Your task to perform on an android device: Open calendar and show me the second week of next month Image 0: 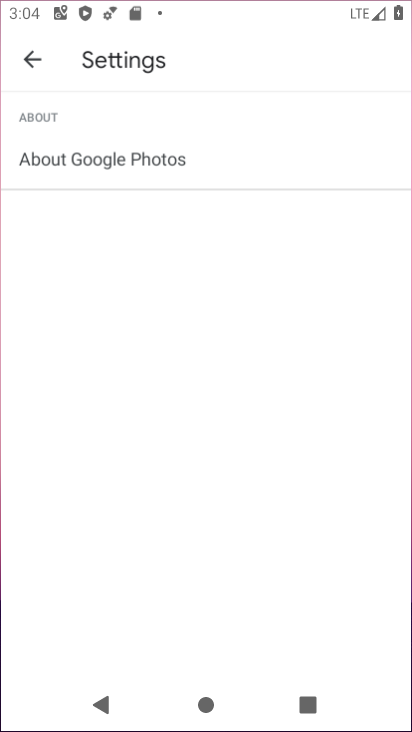
Step 0: drag from (259, 568) to (293, 174)
Your task to perform on an android device: Open calendar and show me the second week of next month Image 1: 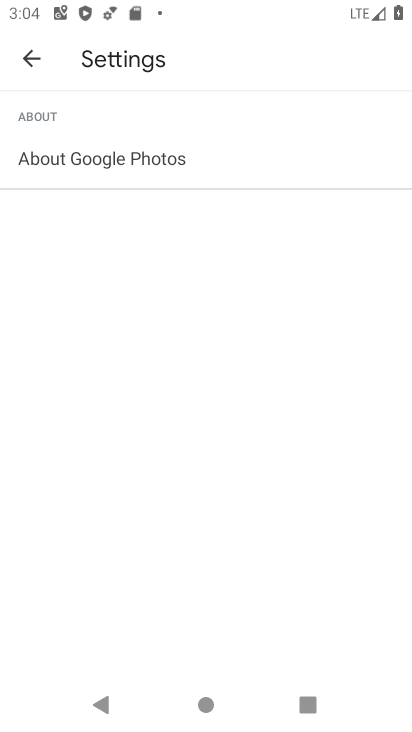
Step 1: press home button
Your task to perform on an android device: Open calendar and show me the second week of next month Image 2: 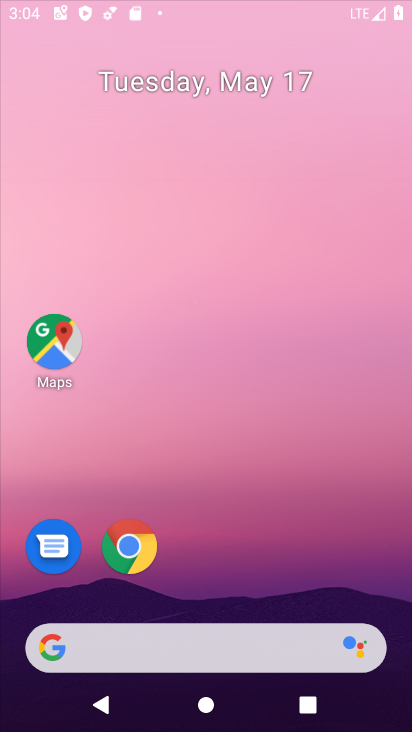
Step 2: drag from (268, 569) to (329, 27)
Your task to perform on an android device: Open calendar and show me the second week of next month Image 3: 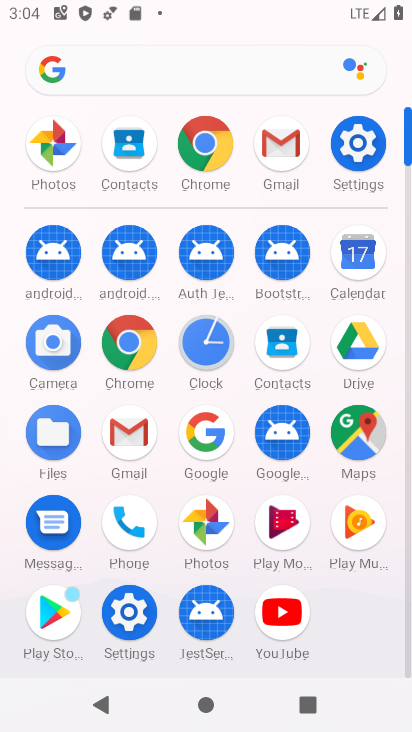
Step 3: click (356, 264)
Your task to perform on an android device: Open calendar and show me the second week of next month Image 4: 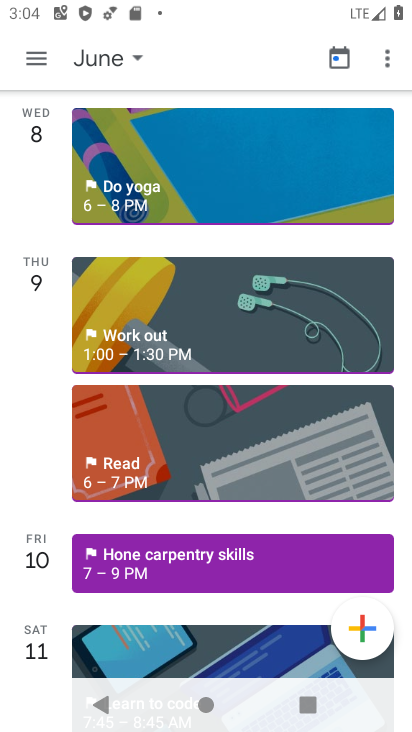
Step 4: click (118, 47)
Your task to perform on an android device: Open calendar and show me the second week of next month Image 5: 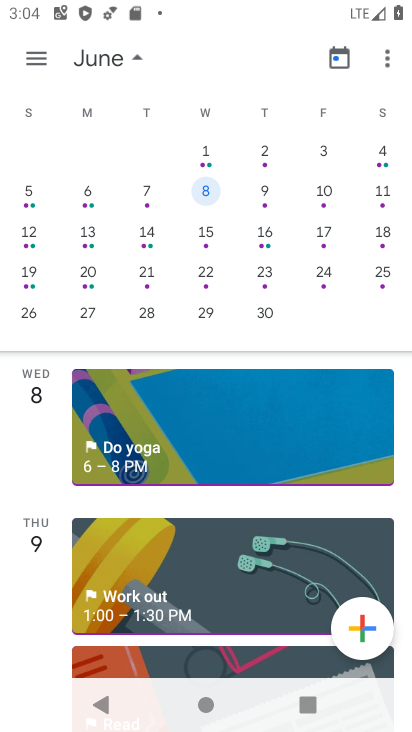
Step 5: task complete